Your task to perform on an android device: Open Chrome and go to settings Image 0: 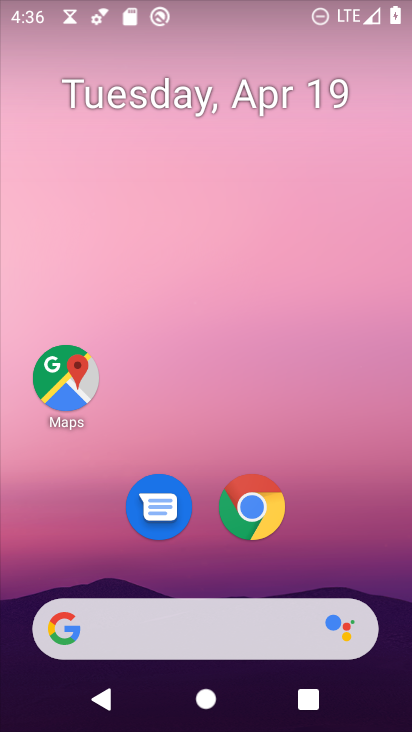
Step 0: click (237, 525)
Your task to perform on an android device: Open Chrome and go to settings Image 1: 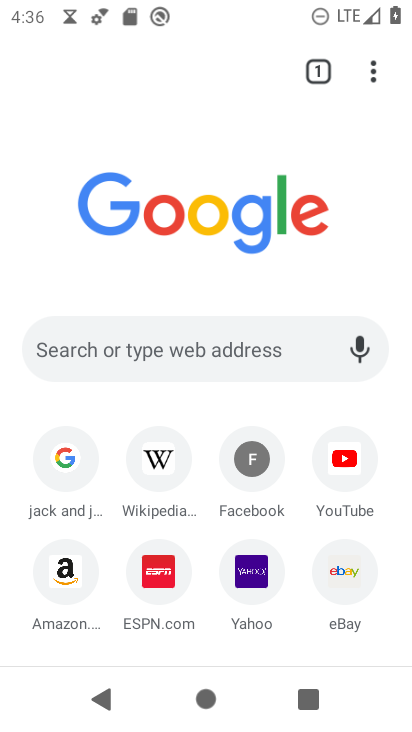
Step 1: click (370, 66)
Your task to perform on an android device: Open Chrome and go to settings Image 2: 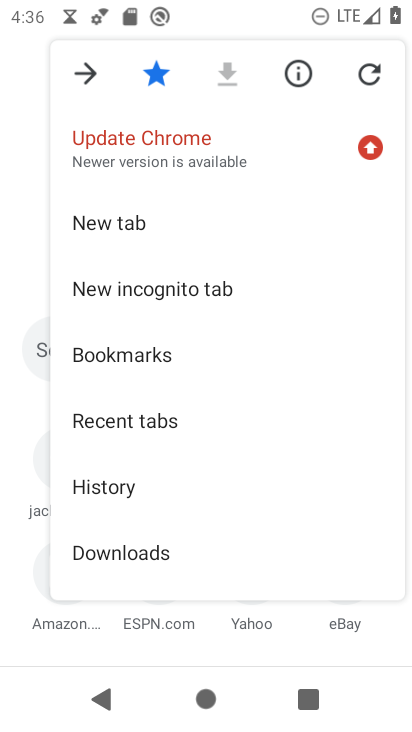
Step 2: drag from (326, 549) to (307, 418)
Your task to perform on an android device: Open Chrome and go to settings Image 3: 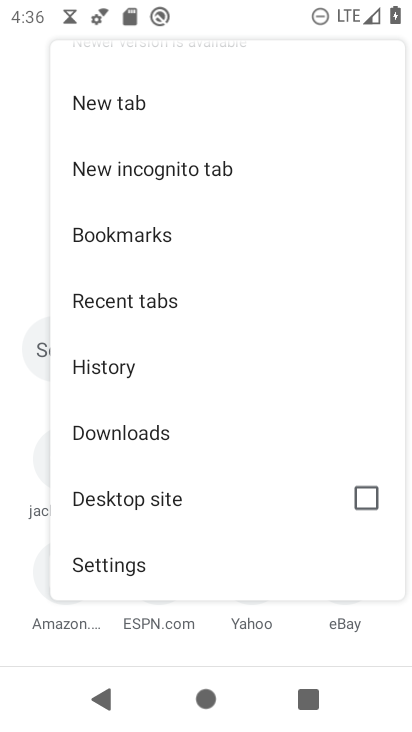
Step 3: click (248, 564)
Your task to perform on an android device: Open Chrome and go to settings Image 4: 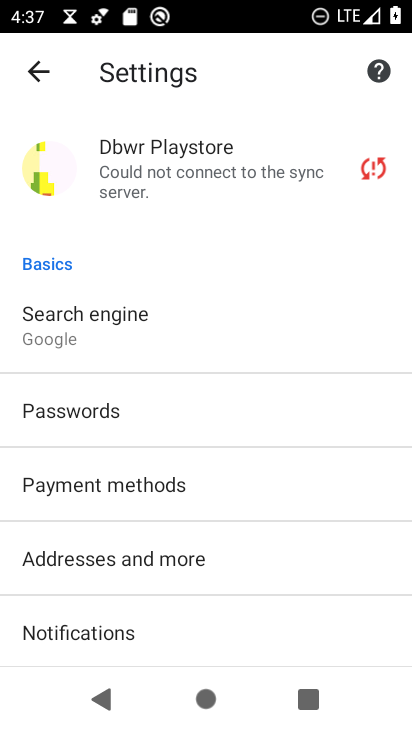
Step 4: task complete